Your task to perform on an android device: open sync settings in chrome Image 0: 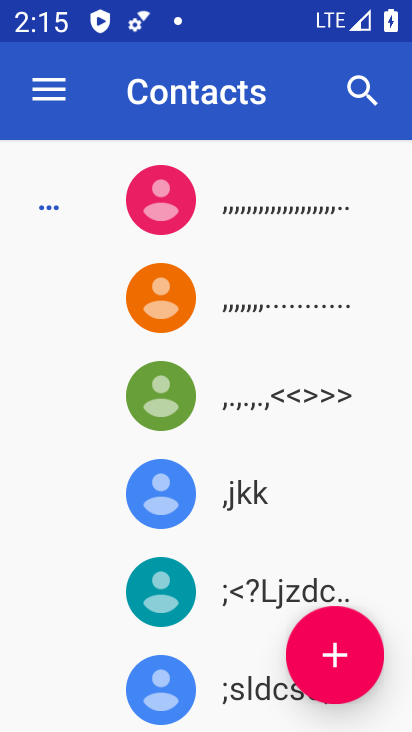
Step 0: press home button
Your task to perform on an android device: open sync settings in chrome Image 1: 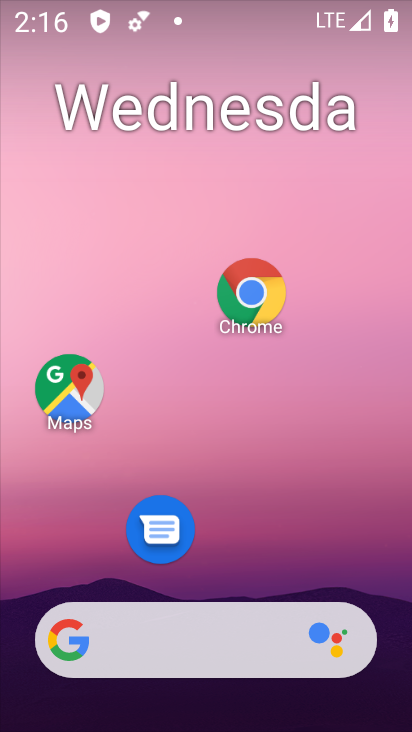
Step 1: click (267, 284)
Your task to perform on an android device: open sync settings in chrome Image 2: 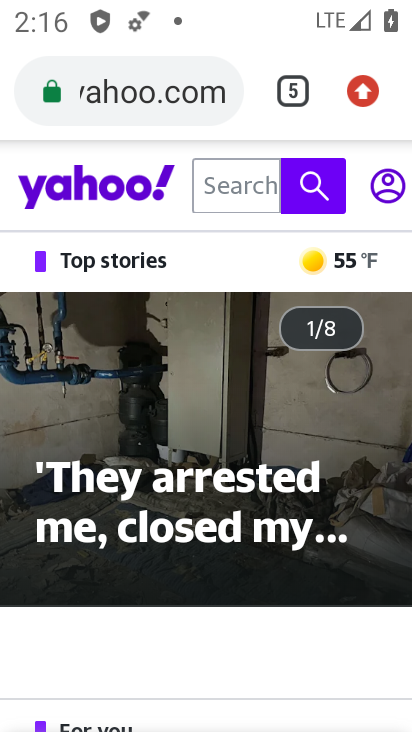
Step 2: click (372, 79)
Your task to perform on an android device: open sync settings in chrome Image 3: 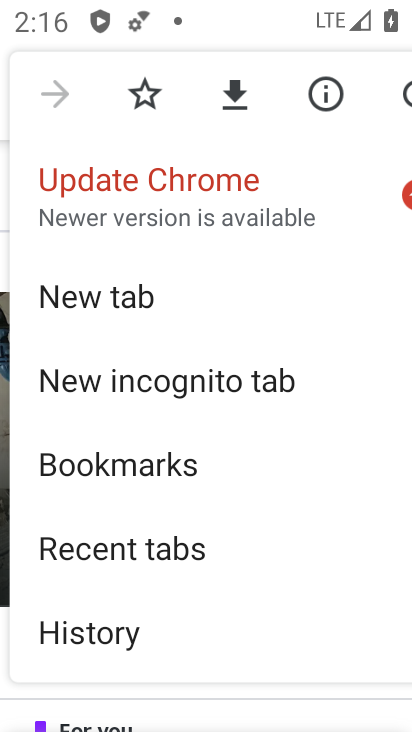
Step 3: drag from (195, 558) to (226, 210)
Your task to perform on an android device: open sync settings in chrome Image 4: 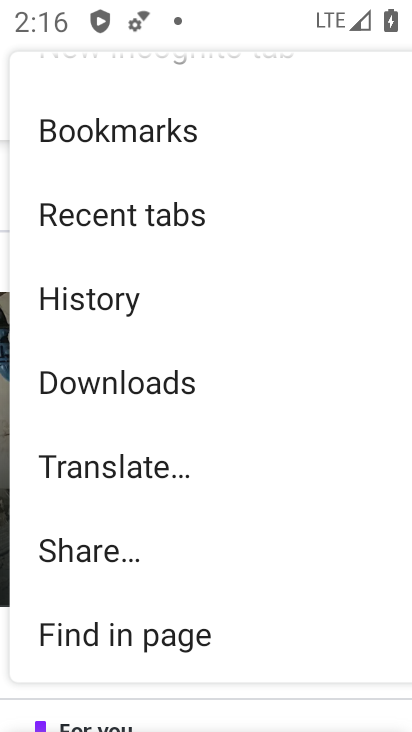
Step 4: drag from (163, 560) to (191, 286)
Your task to perform on an android device: open sync settings in chrome Image 5: 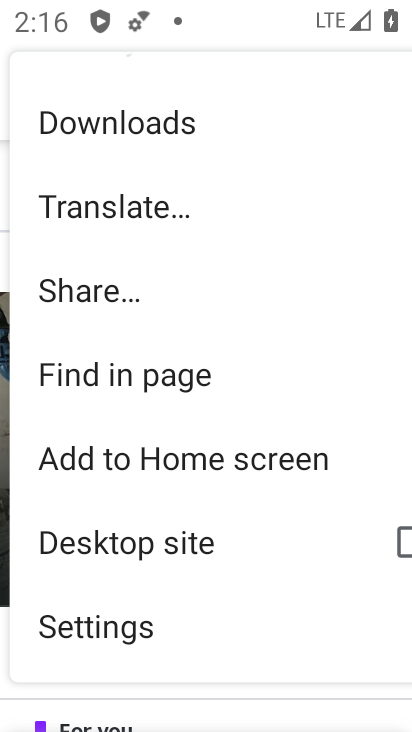
Step 5: click (141, 646)
Your task to perform on an android device: open sync settings in chrome Image 6: 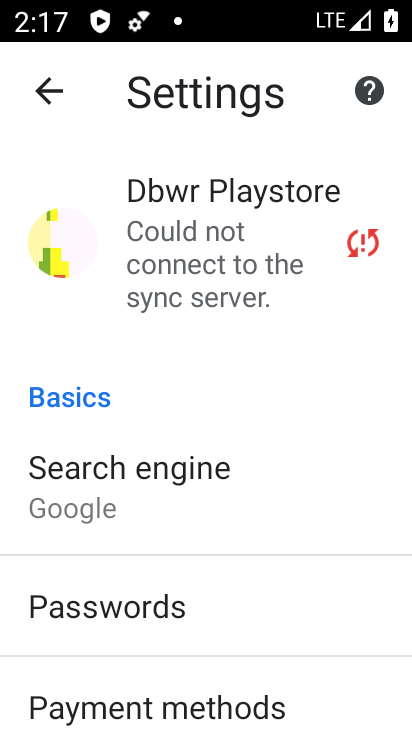
Step 6: click (278, 266)
Your task to perform on an android device: open sync settings in chrome Image 7: 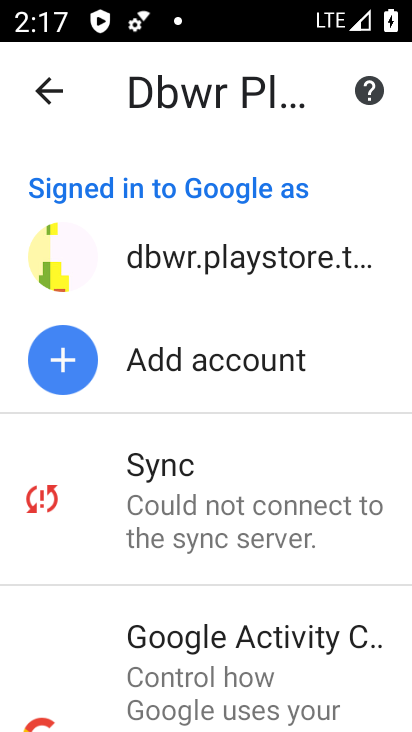
Step 7: click (195, 500)
Your task to perform on an android device: open sync settings in chrome Image 8: 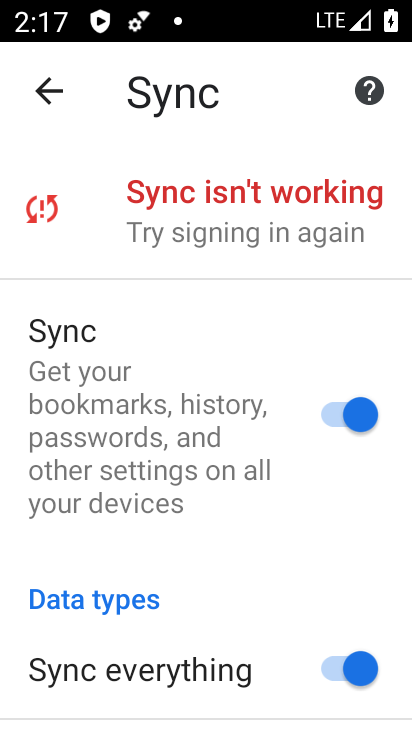
Step 8: task complete